Your task to perform on an android device: uninstall "Google Play Music" Image 0: 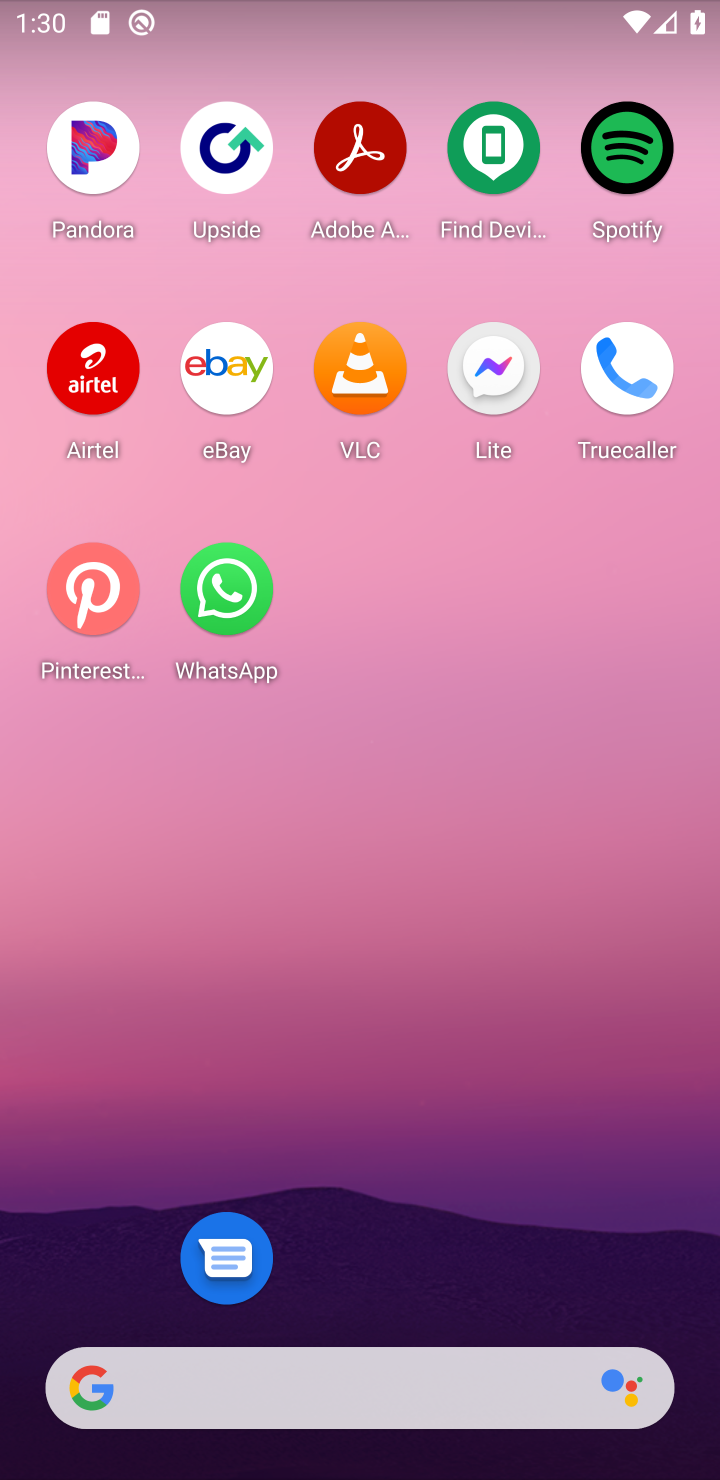
Step 0: drag from (306, 1287) to (371, 378)
Your task to perform on an android device: uninstall "Google Play Music" Image 1: 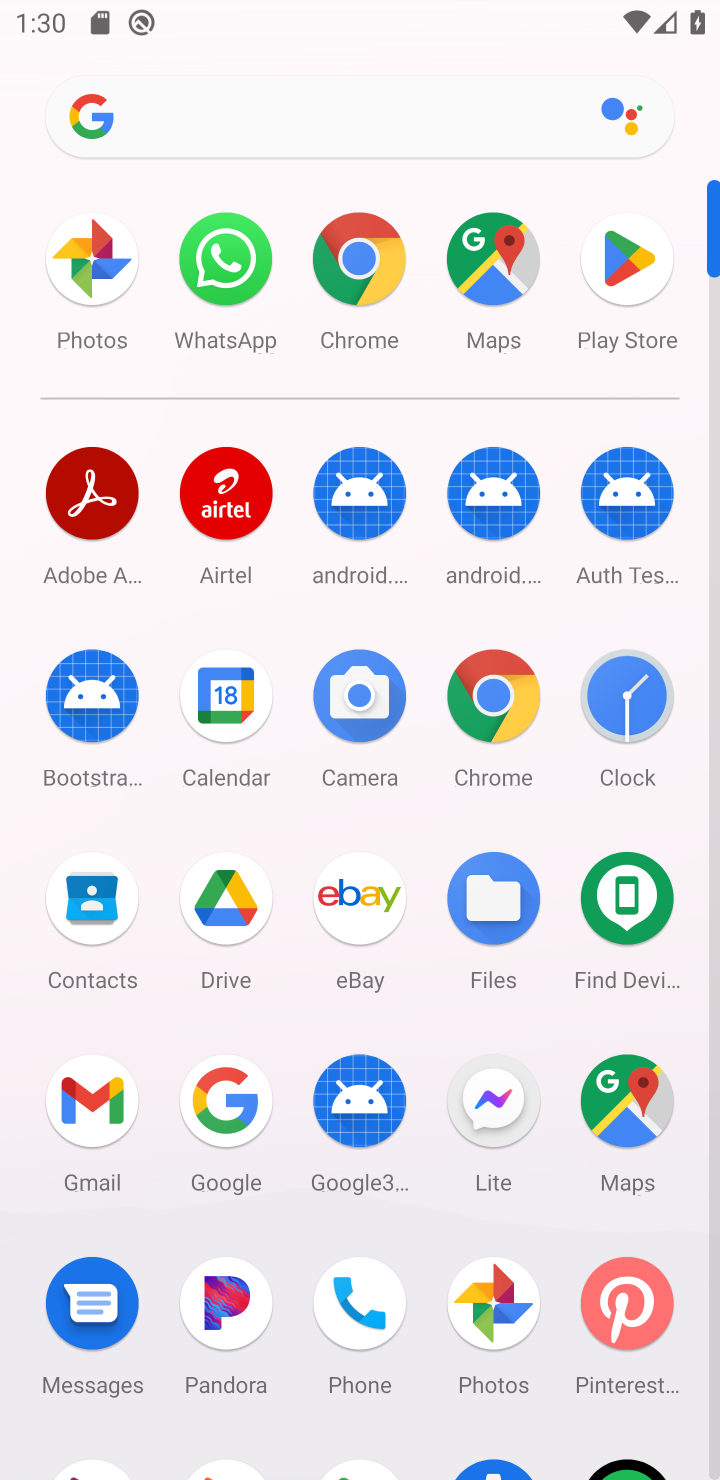
Step 1: click (629, 260)
Your task to perform on an android device: uninstall "Google Play Music" Image 2: 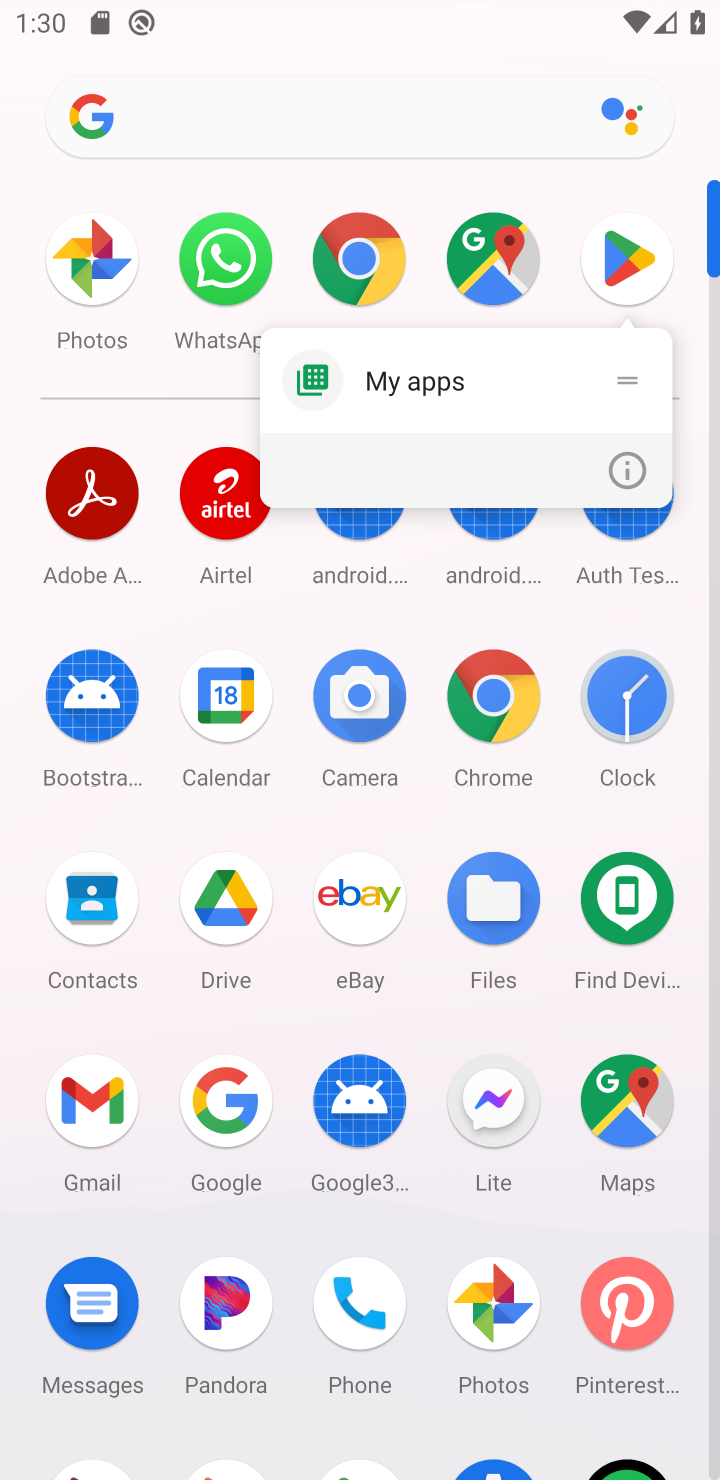
Step 2: click (614, 271)
Your task to perform on an android device: uninstall "Google Play Music" Image 3: 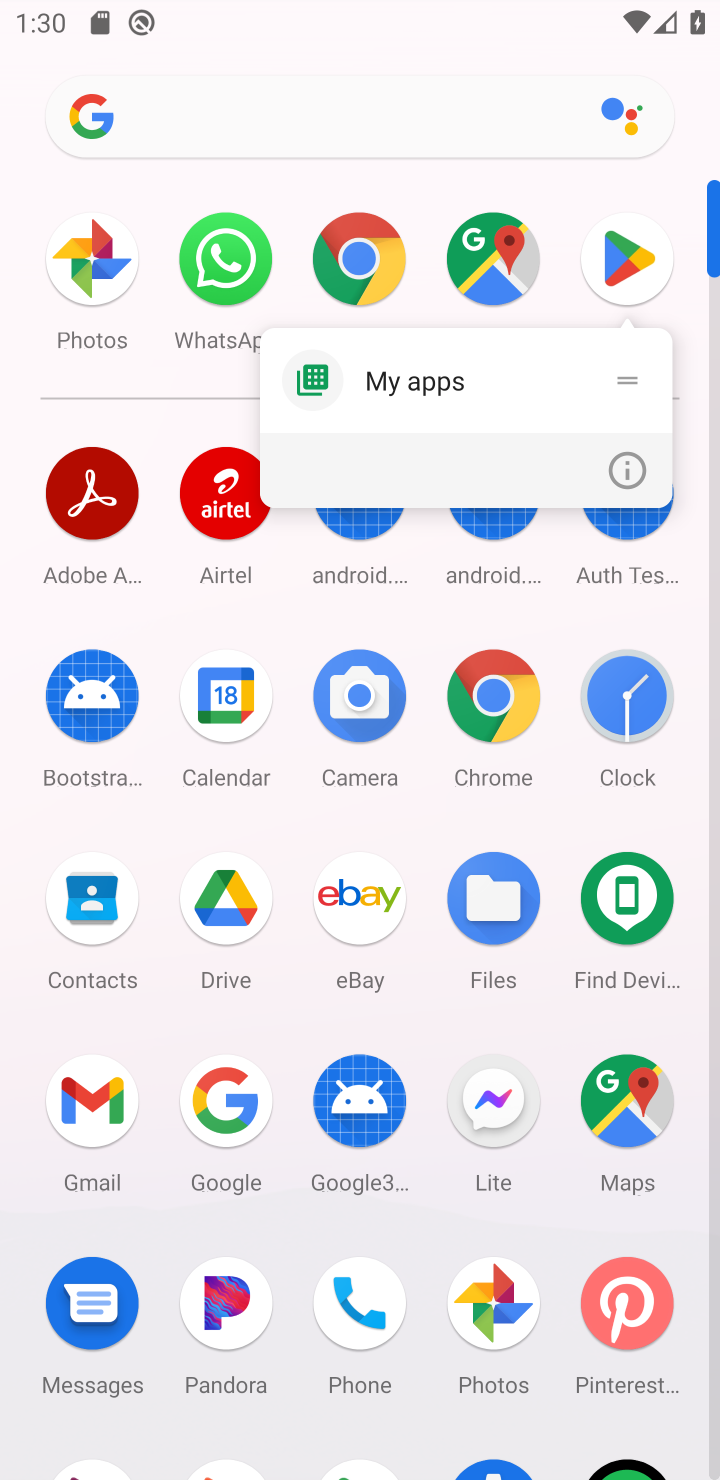
Step 3: click (614, 263)
Your task to perform on an android device: uninstall "Google Play Music" Image 4: 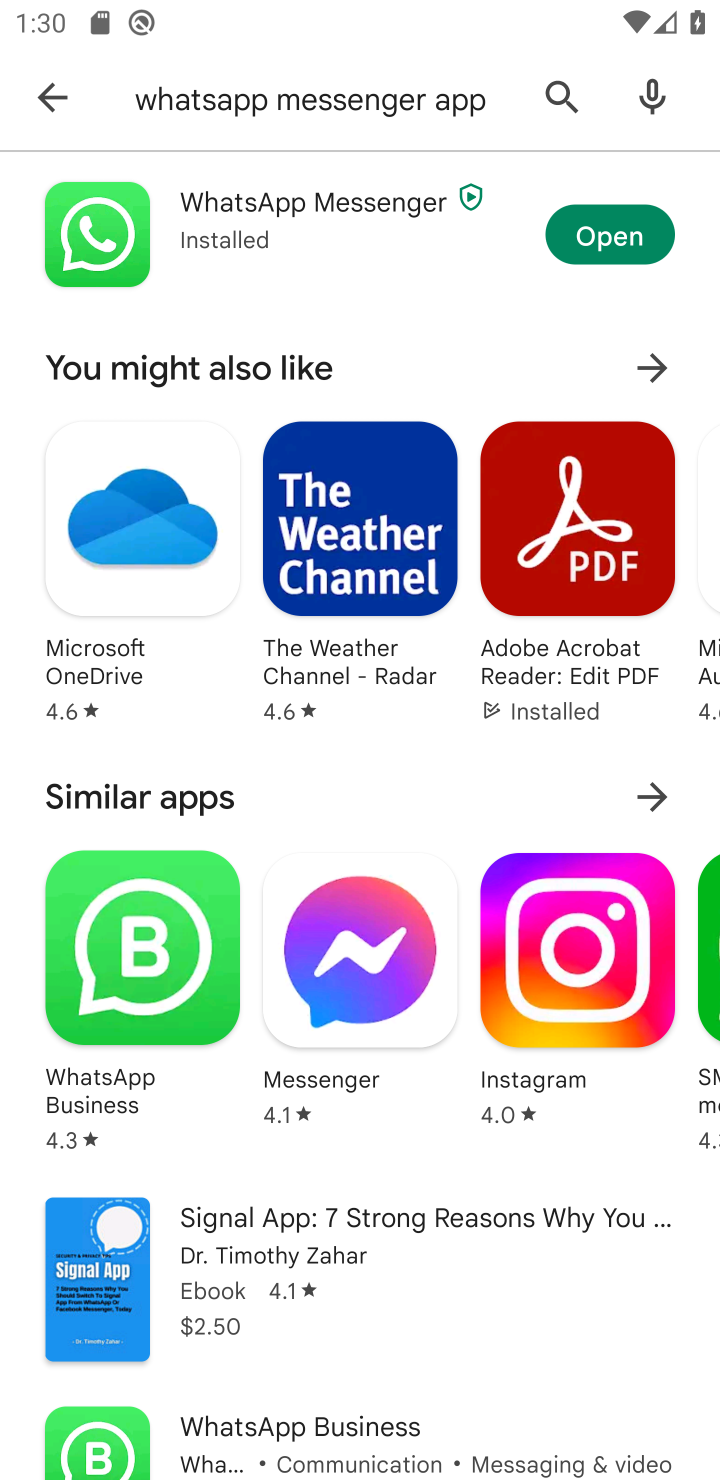
Step 4: click (81, 109)
Your task to perform on an android device: uninstall "Google Play Music" Image 5: 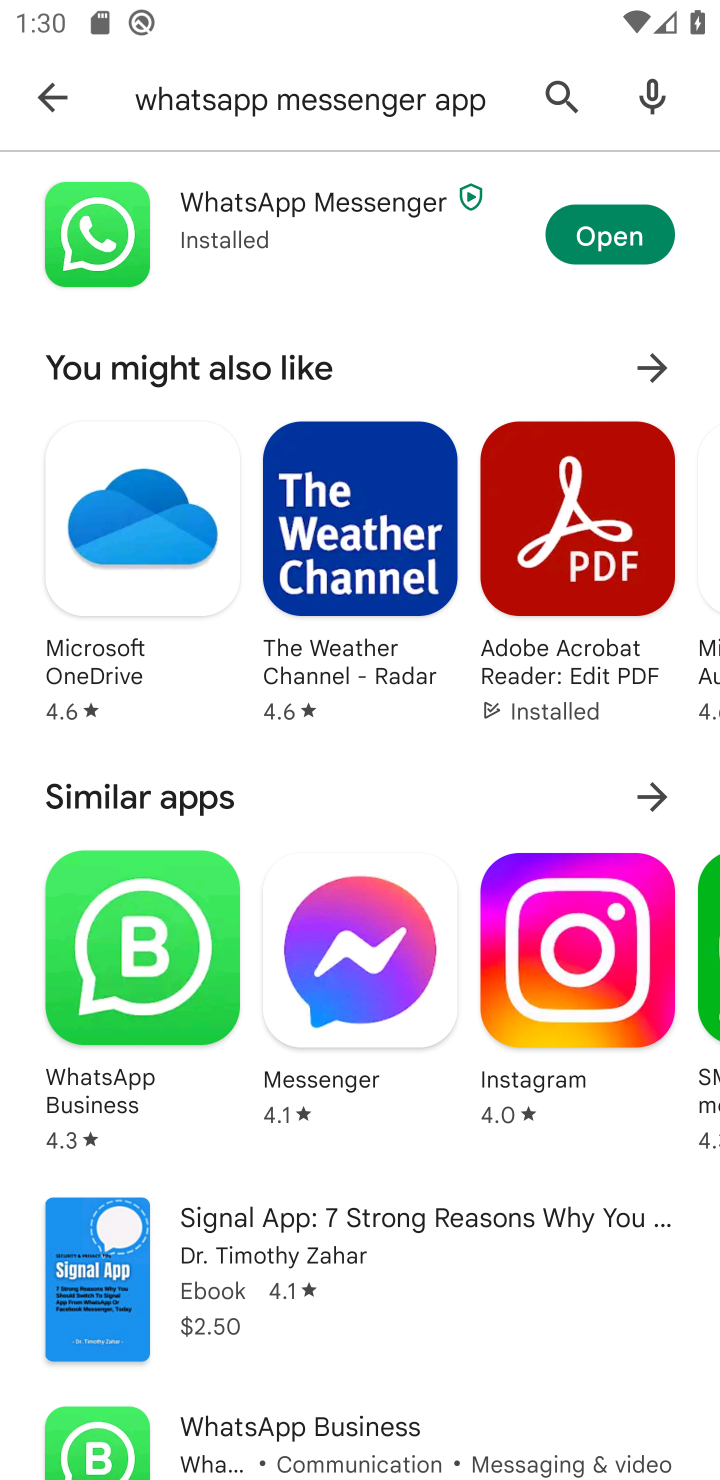
Step 5: click (566, 82)
Your task to perform on an android device: uninstall "Google Play Music" Image 6: 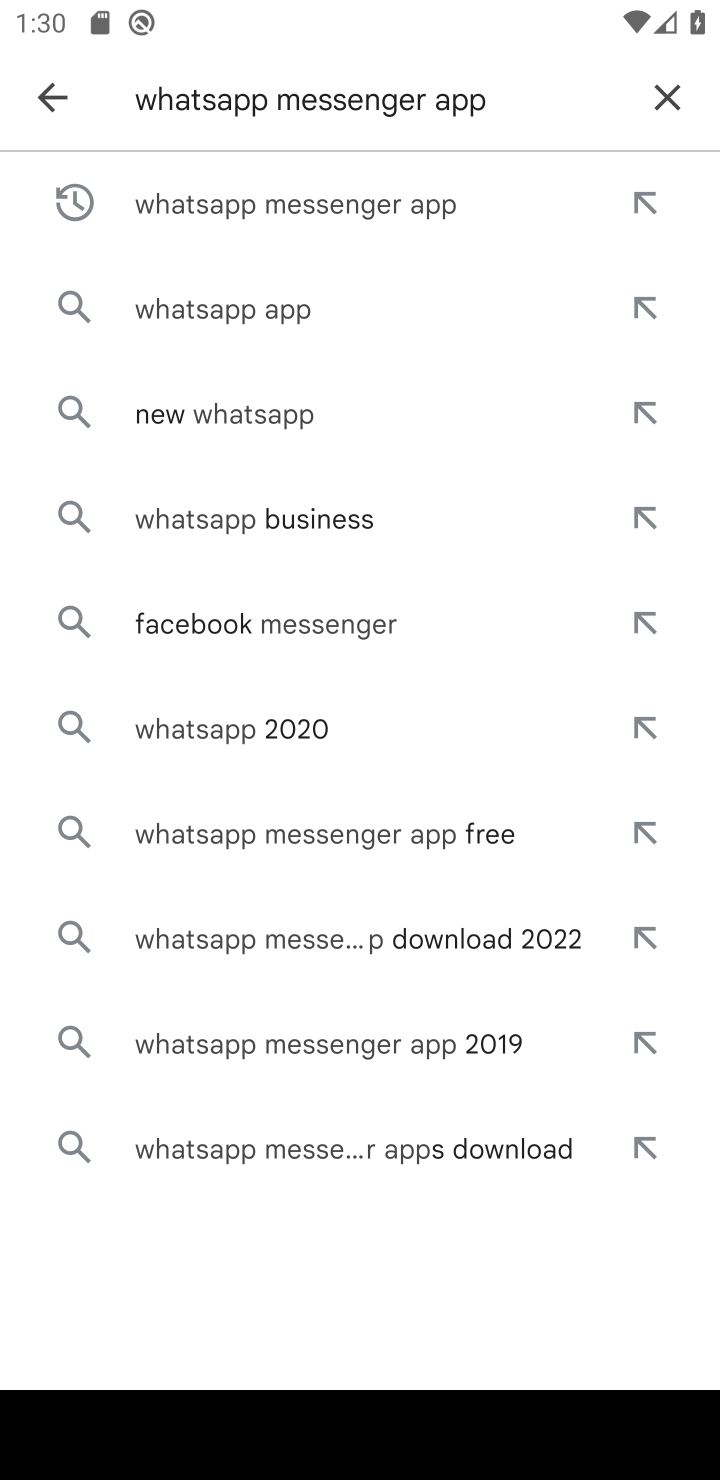
Step 6: click (687, 119)
Your task to perform on an android device: uninstall "Google Play Music" Image 7: 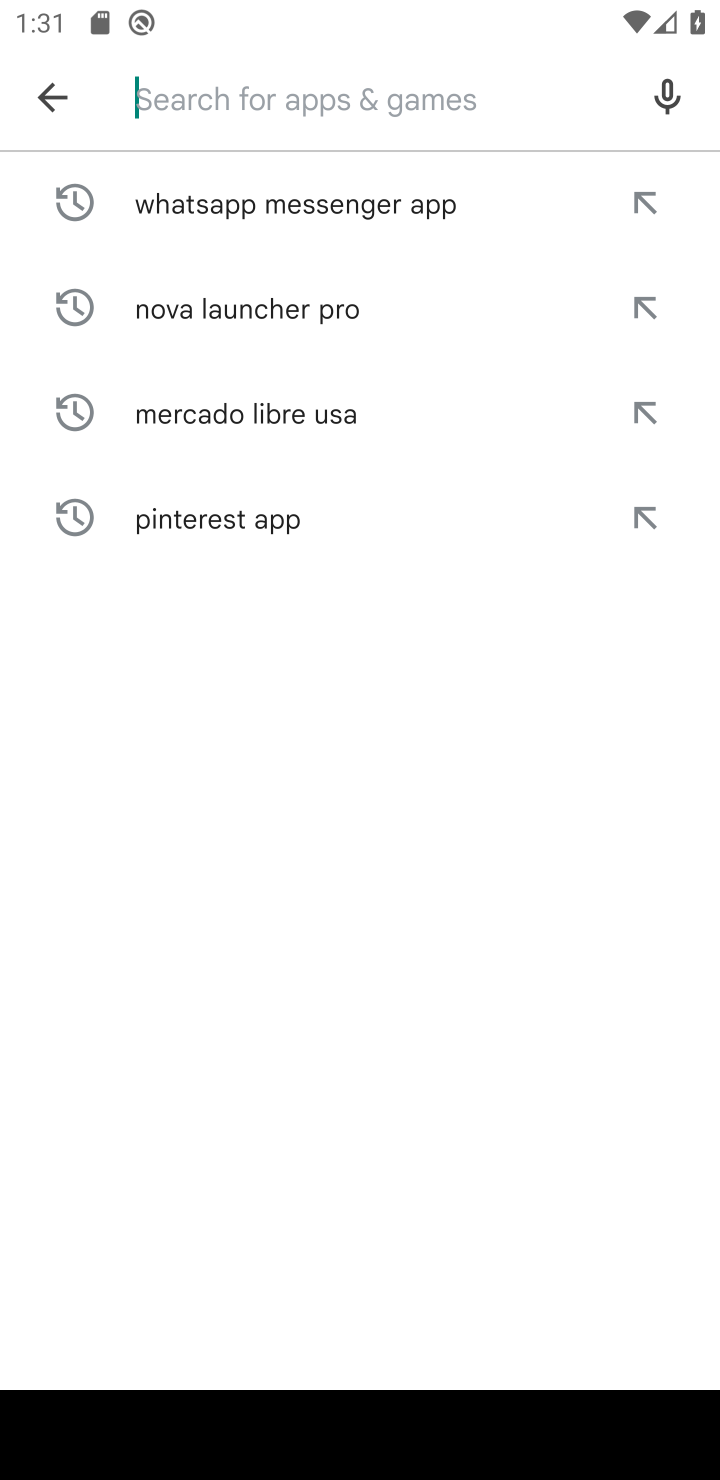
Step 7: click (413, 85)
Your task to perform on an android device: uninstall "Google Play Music" Image 8: 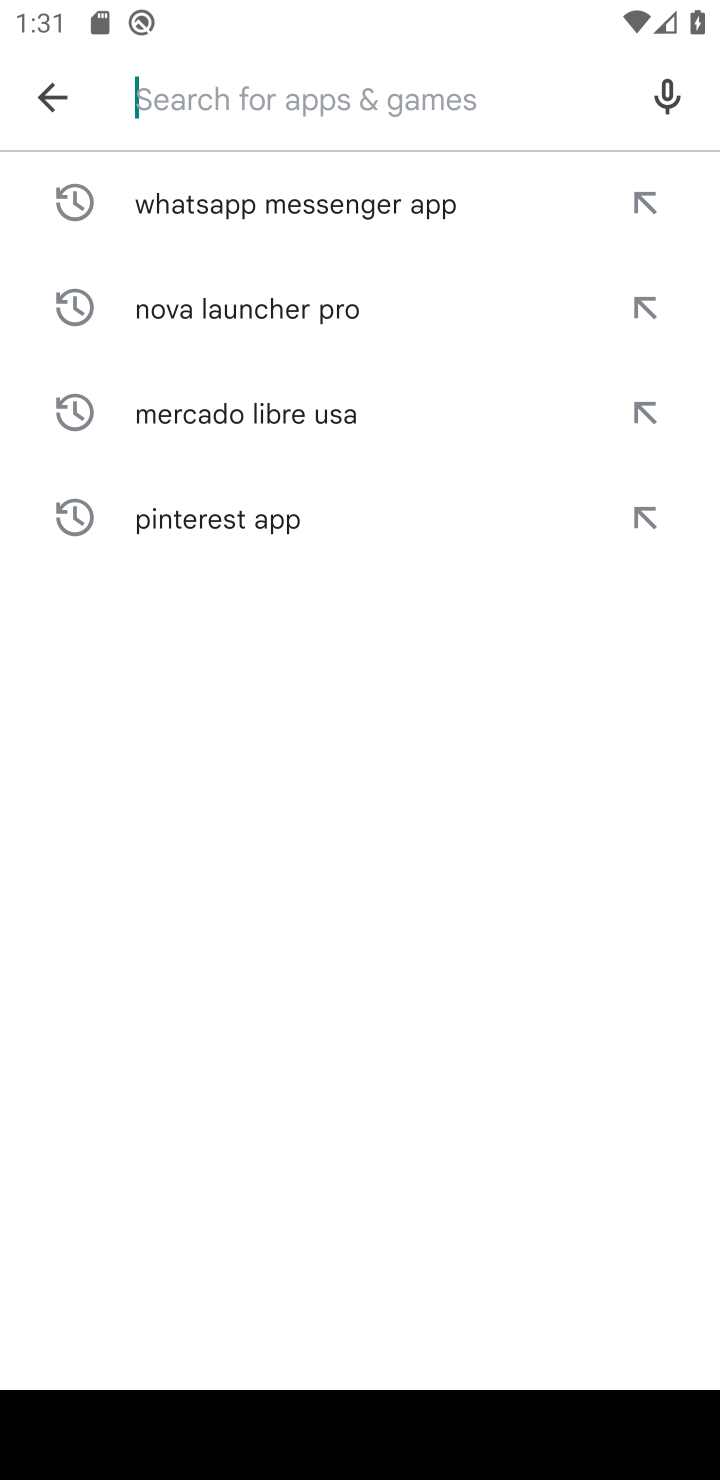
Step 8: type "Google Play Music "
Your task to perform on an android device: uninstall "Google Play Music" Image 9: 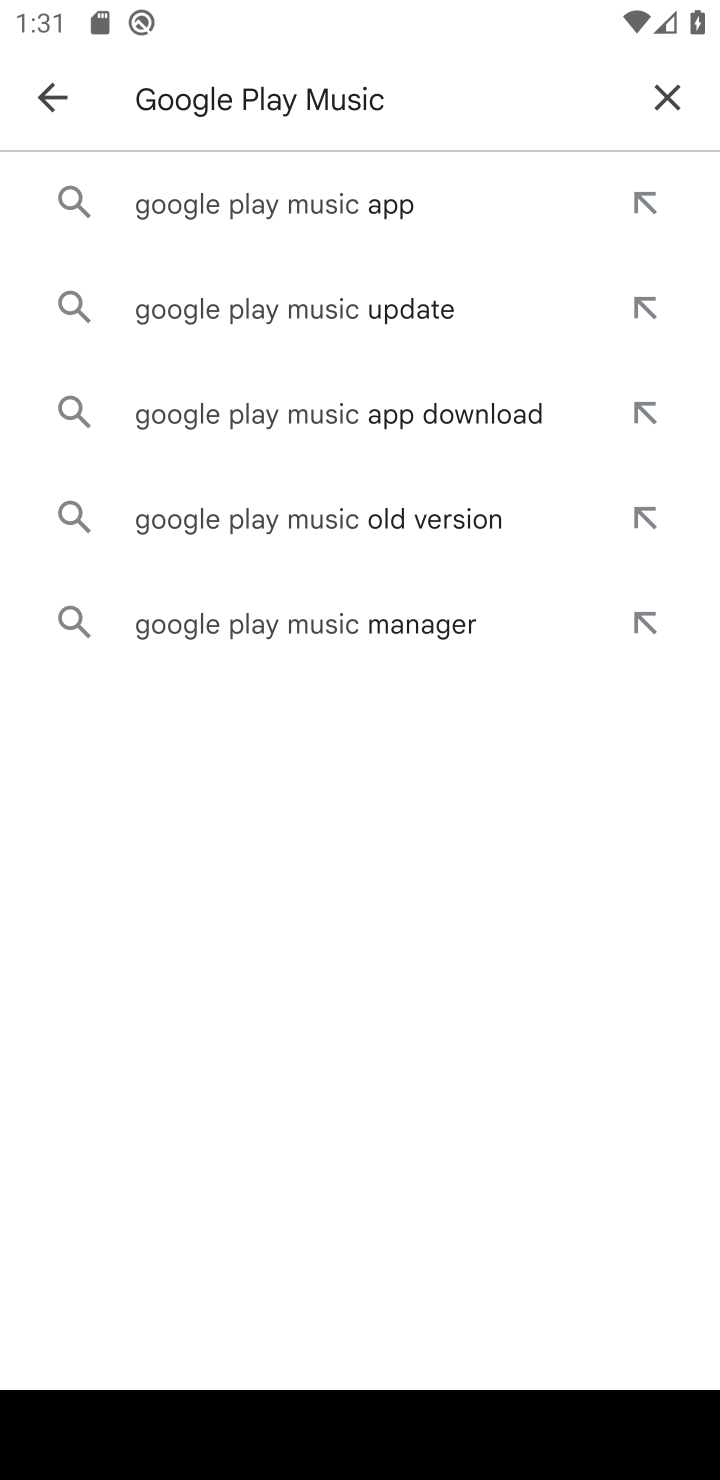
Step 9: click (334, 216)
Your task to perform on an android device: uninstall "Google Play Music" Image 10: 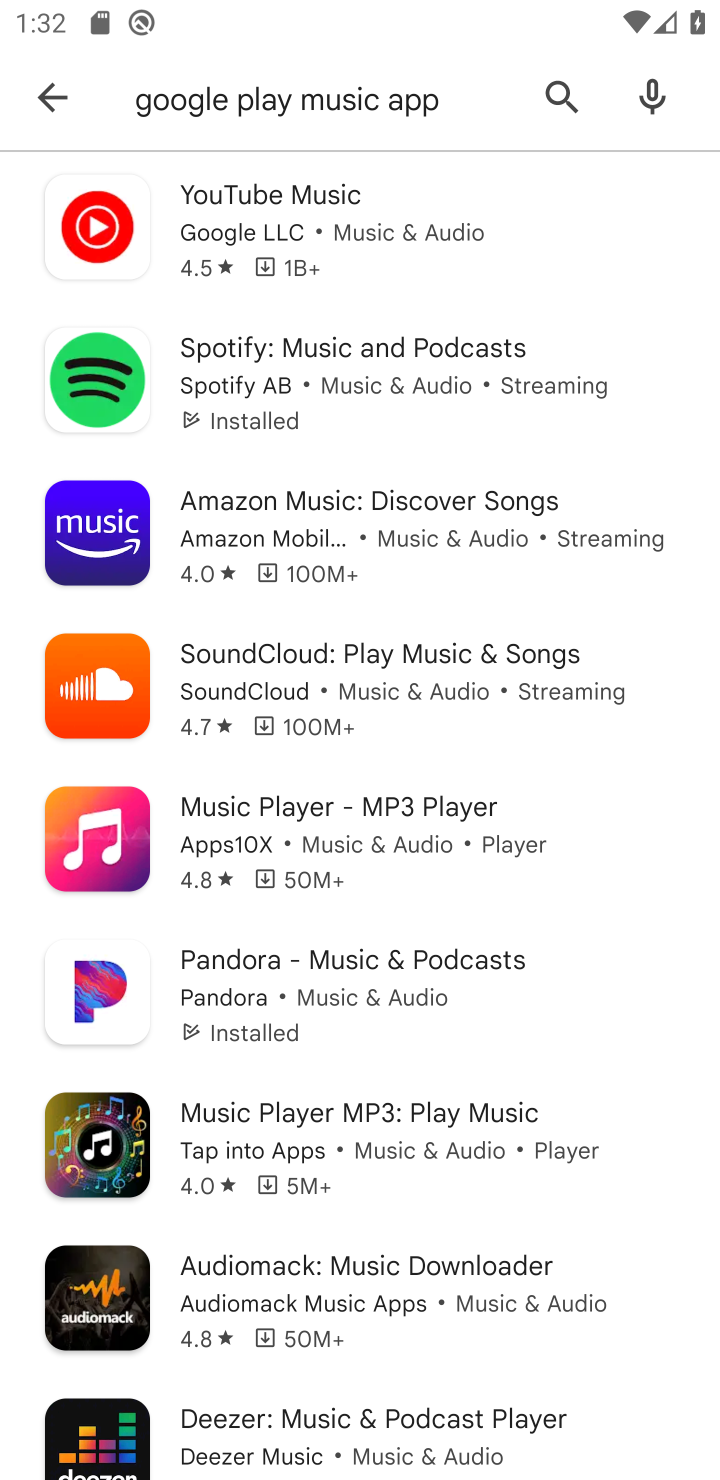
Step 10: task complete